Your task to perform on an android device: open app "Nova Launcher" (install if not already installed) Image 0: 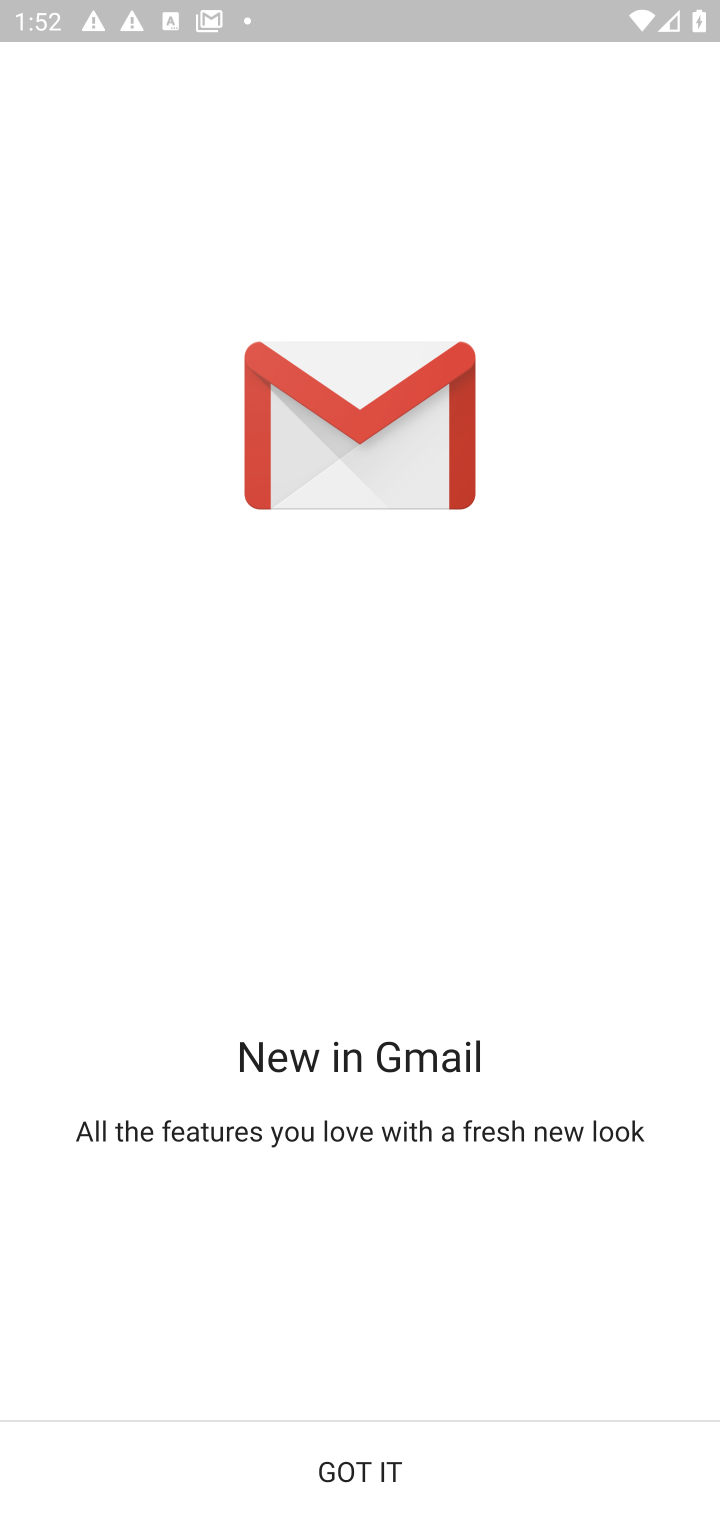
Step 0: press home button
Your task to perform on an android device: open app "Nova Launcher" (install if not already installed) Image 1: 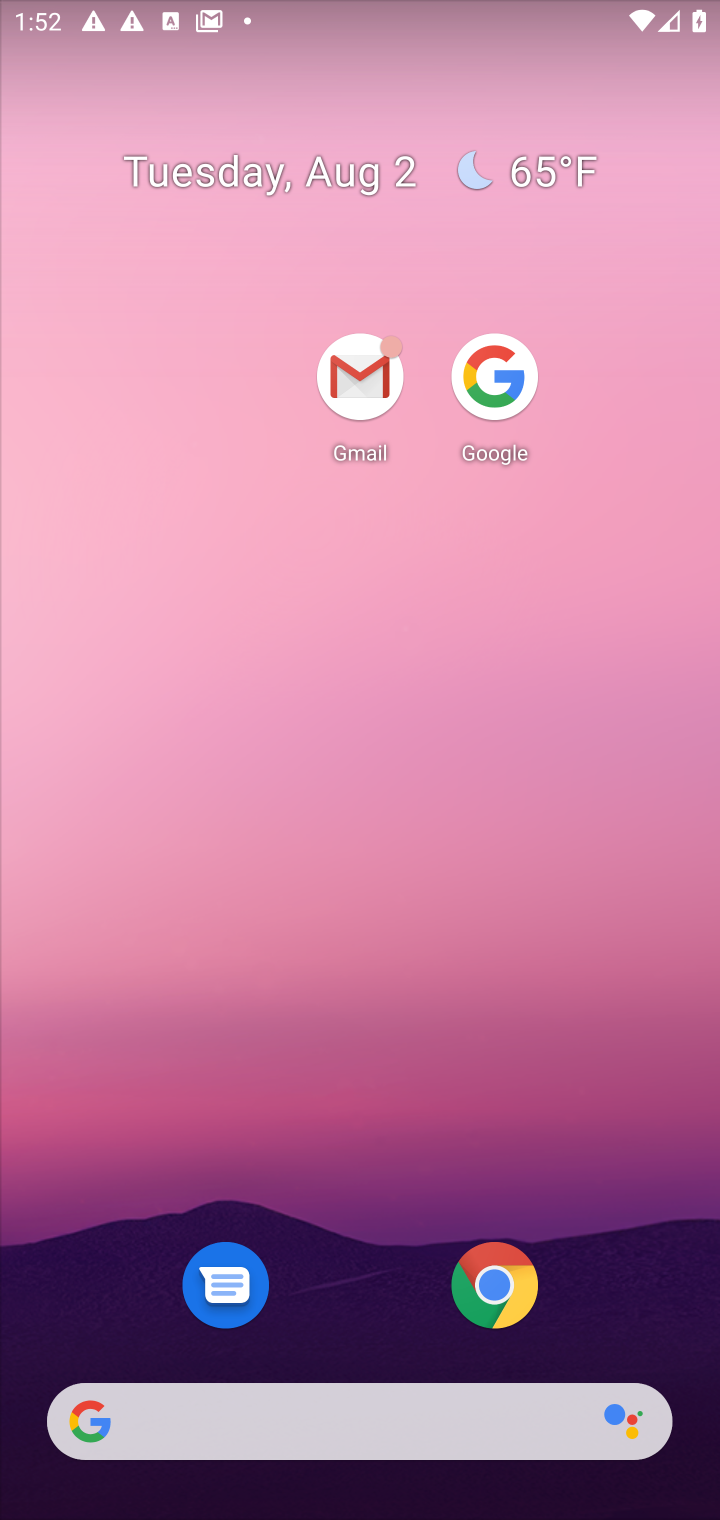
Step 1: drag from (384, 814) to (358, 36)
Your task to perform on an android device: open app "Nova Launcher" (install if not already installed) Image 2: 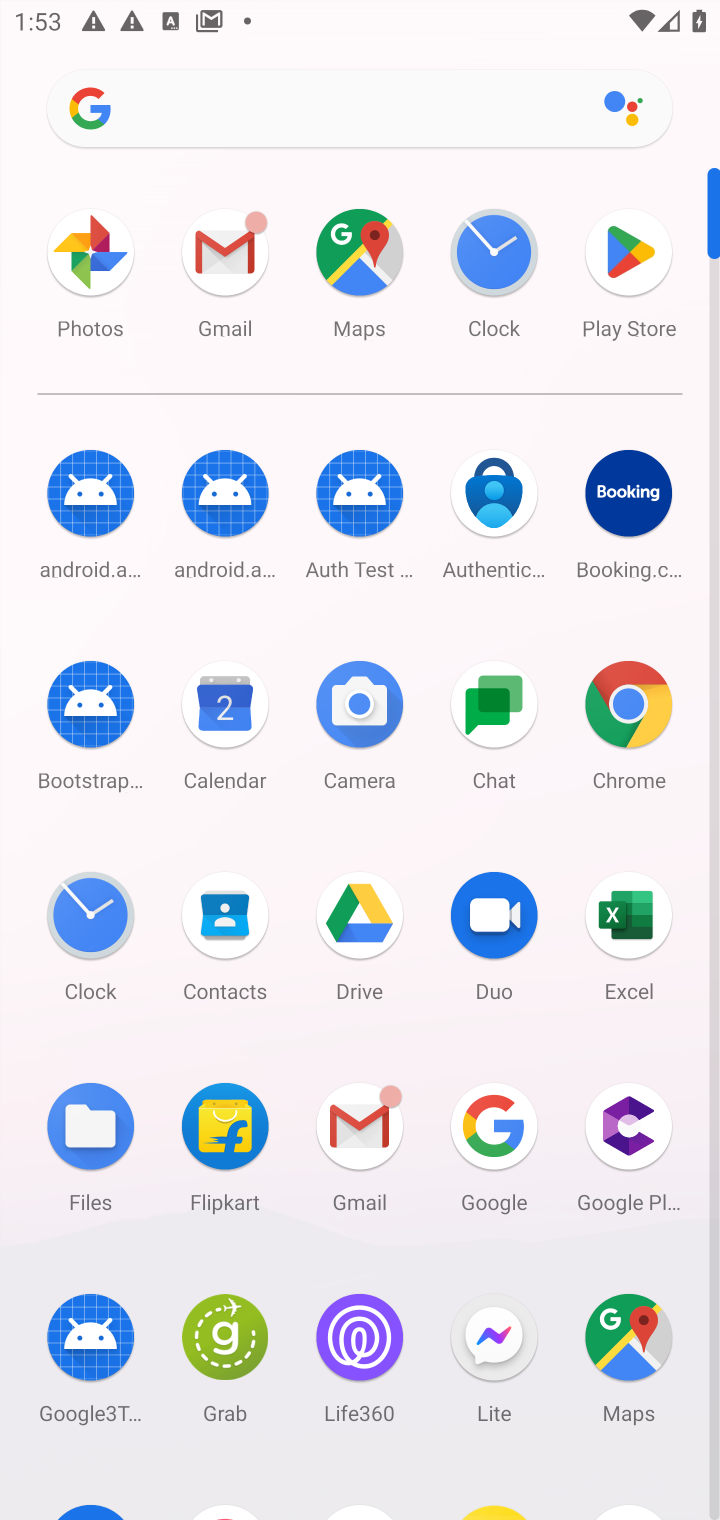
Step 2: drag from (413, 1024) to (411, 311)
Your task to perform on an android device: open app "Nova Launcher" (install if not already installed) Image 3: 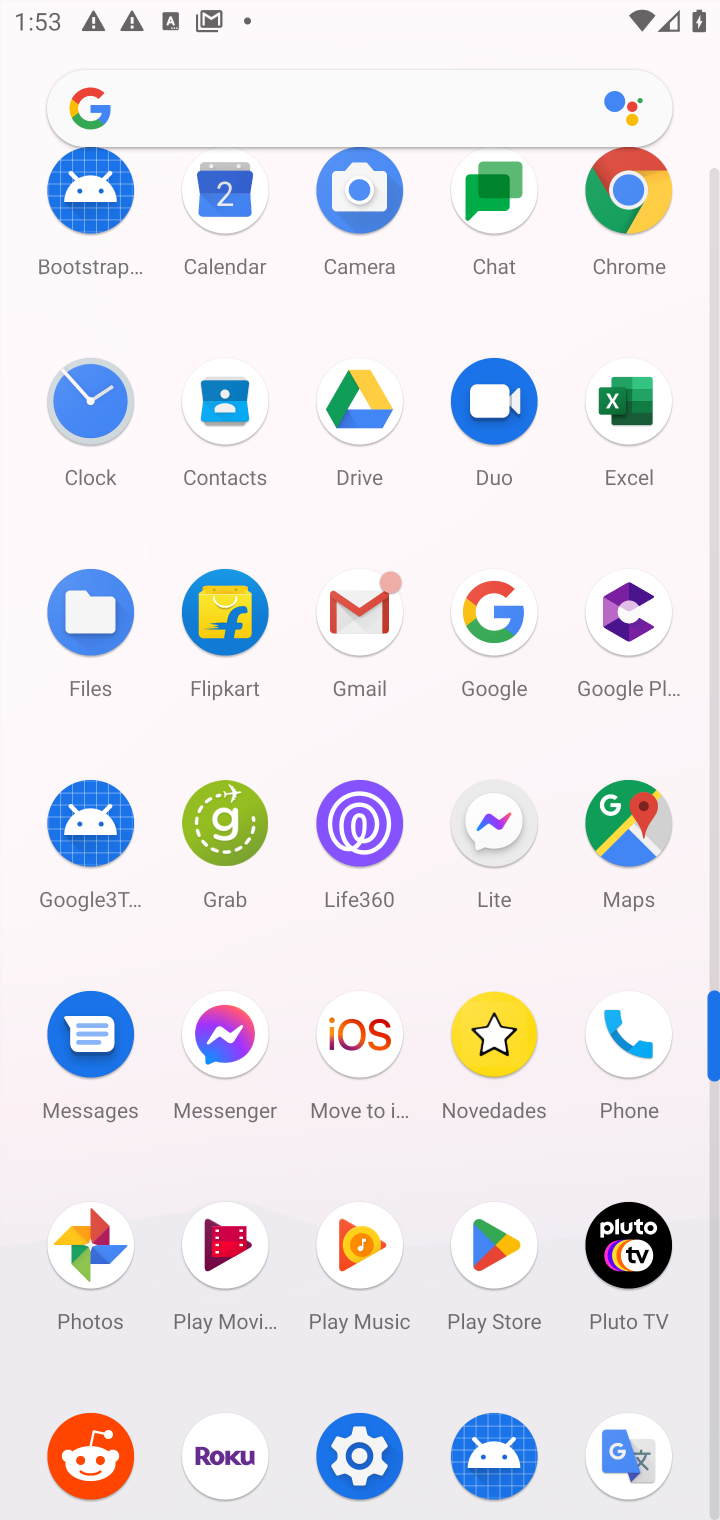
Step 3: click (506, 1244)
Your task to perform on an android device: open app "Nova Launcher" (install if not already installed) Image 4: 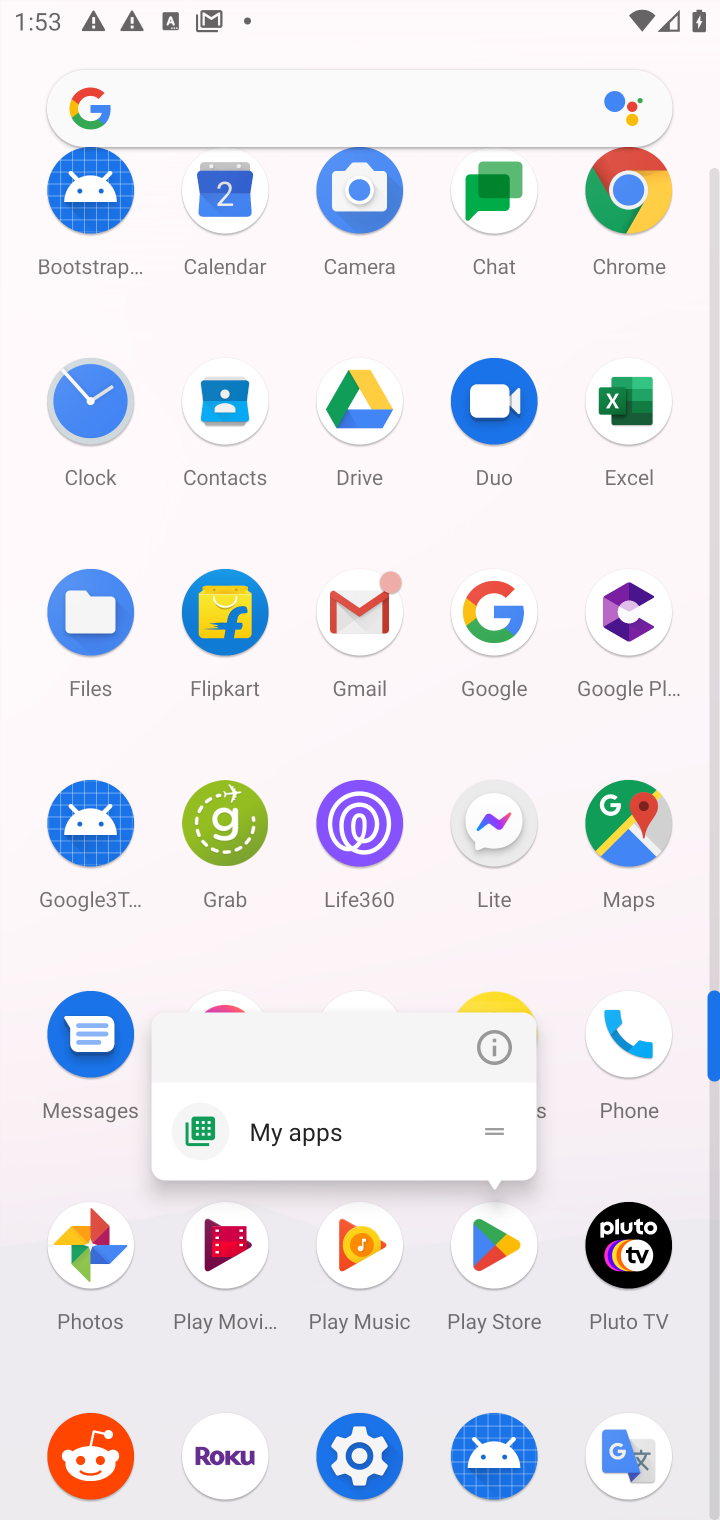
Step 4: click (504, 1249)
Your task to perform on an android device: open app "Nova Launcher" (install if not already installed) Image 5: 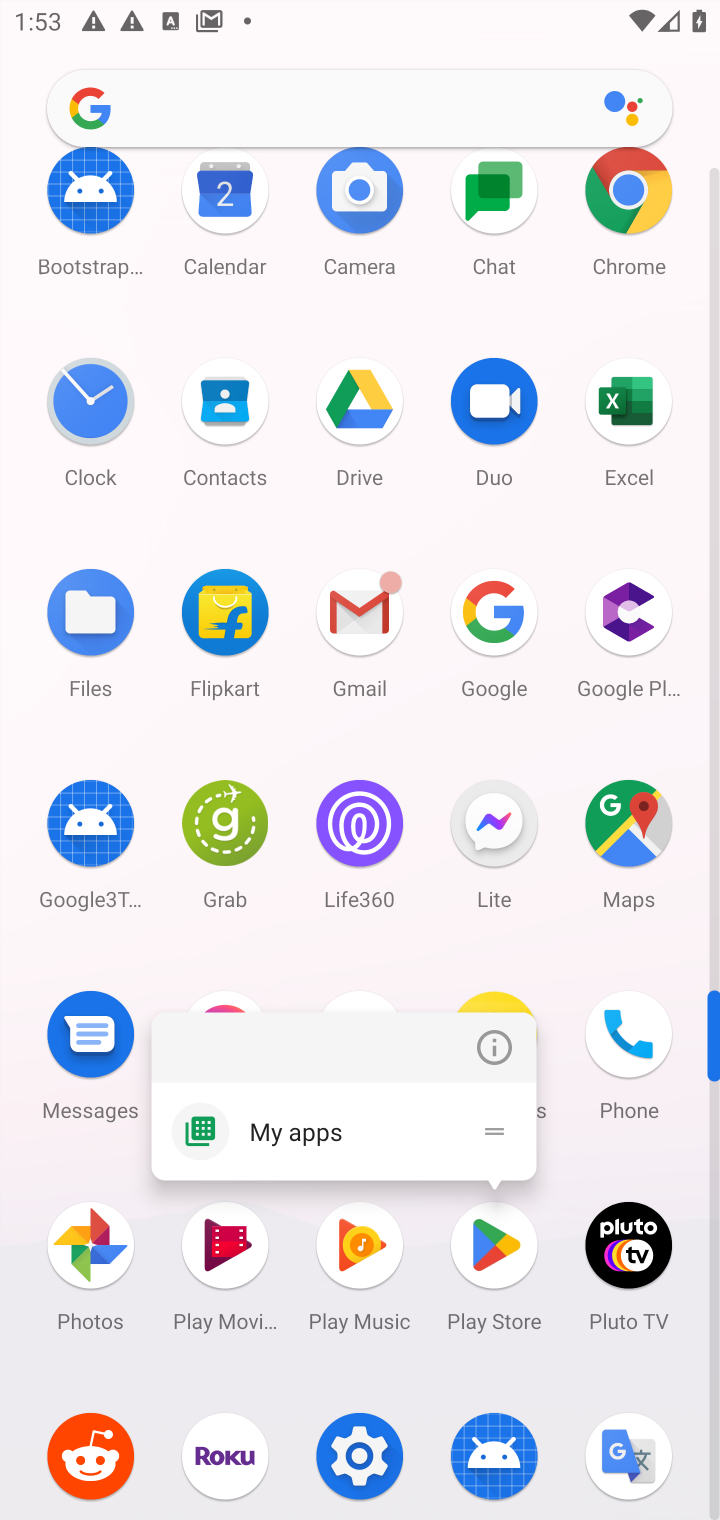
Step 5: click (495, 1246)
Your task to perform on an android device: open app "Nova Launcher" (install if not already installed) Image 6: 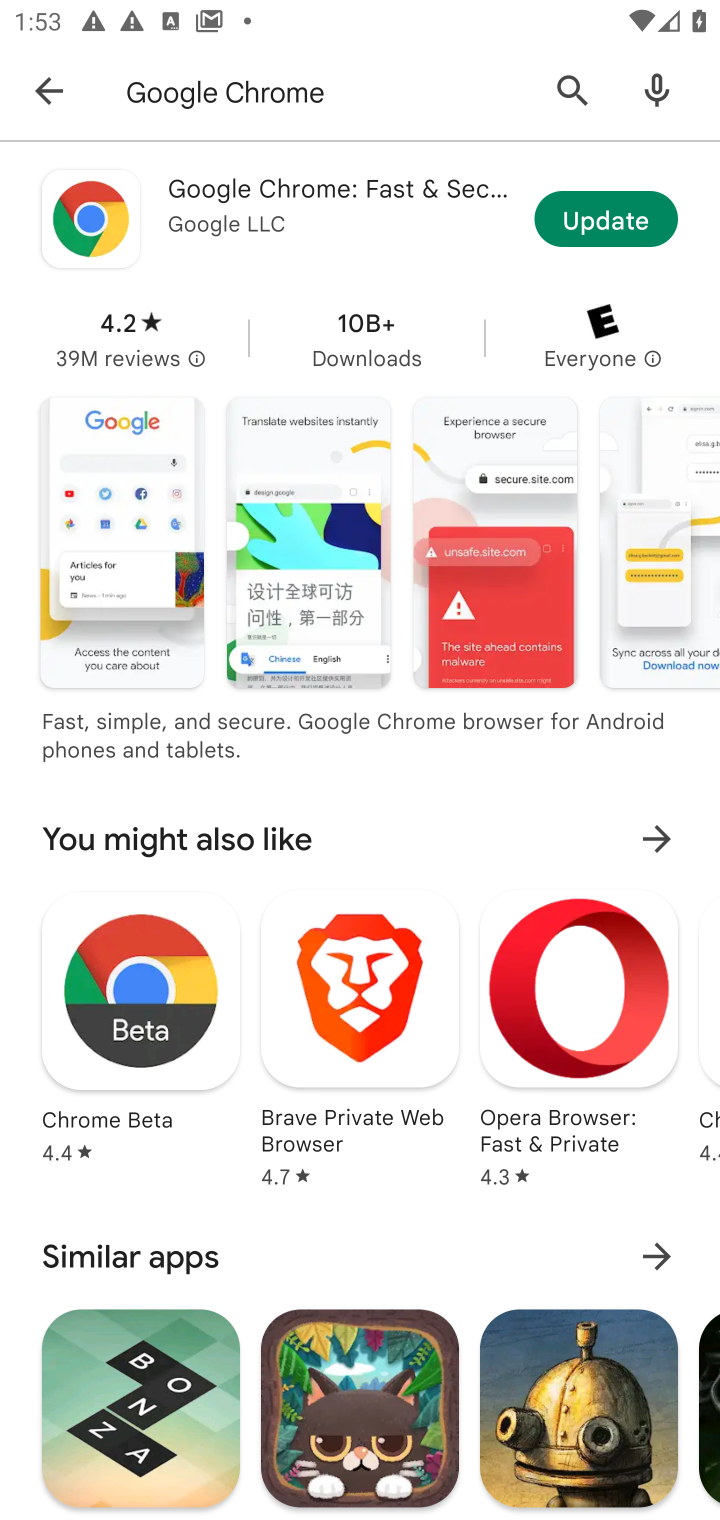
Step 6: click (367, 89)
Your task to perform on an android device: open app "Nova Launcher" (install if not already installed) Image 7: 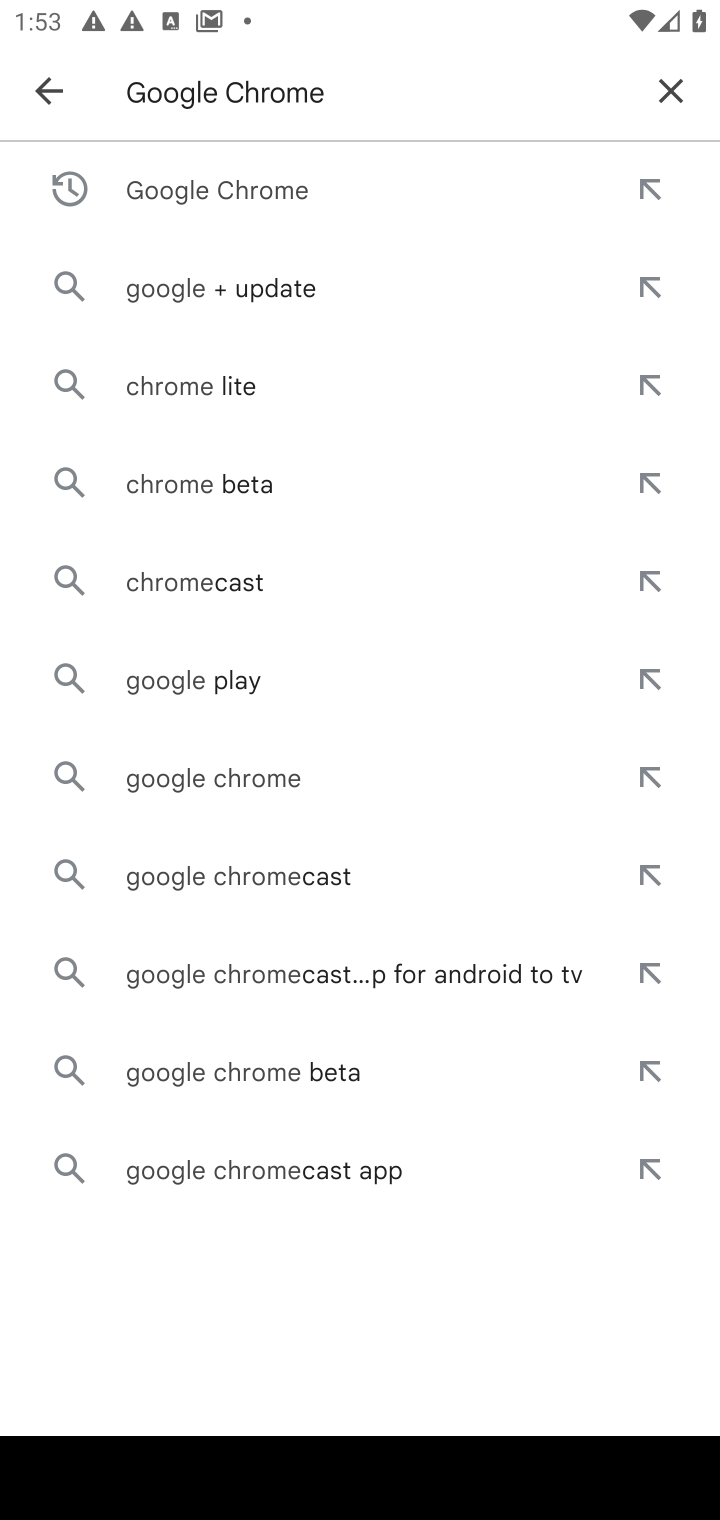
Step 7: click (666, 74)
Your task to perform on an android device: open app "Nova Launcher" (install if not already installed) Image 8: 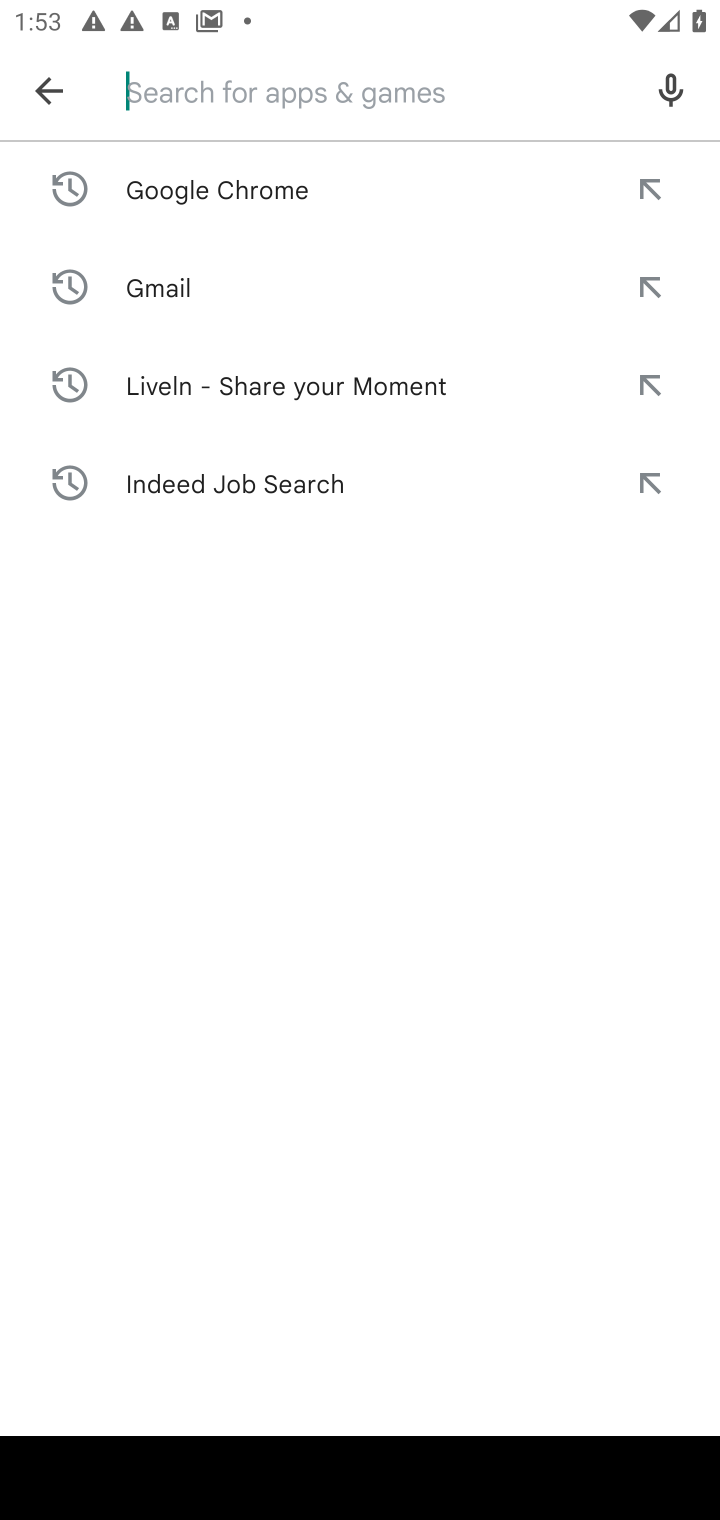
Step 8: type "Nova Launcher"
Your task to perform on an android device: open app "Nova Launcher" (install if not already installed) Image 9: 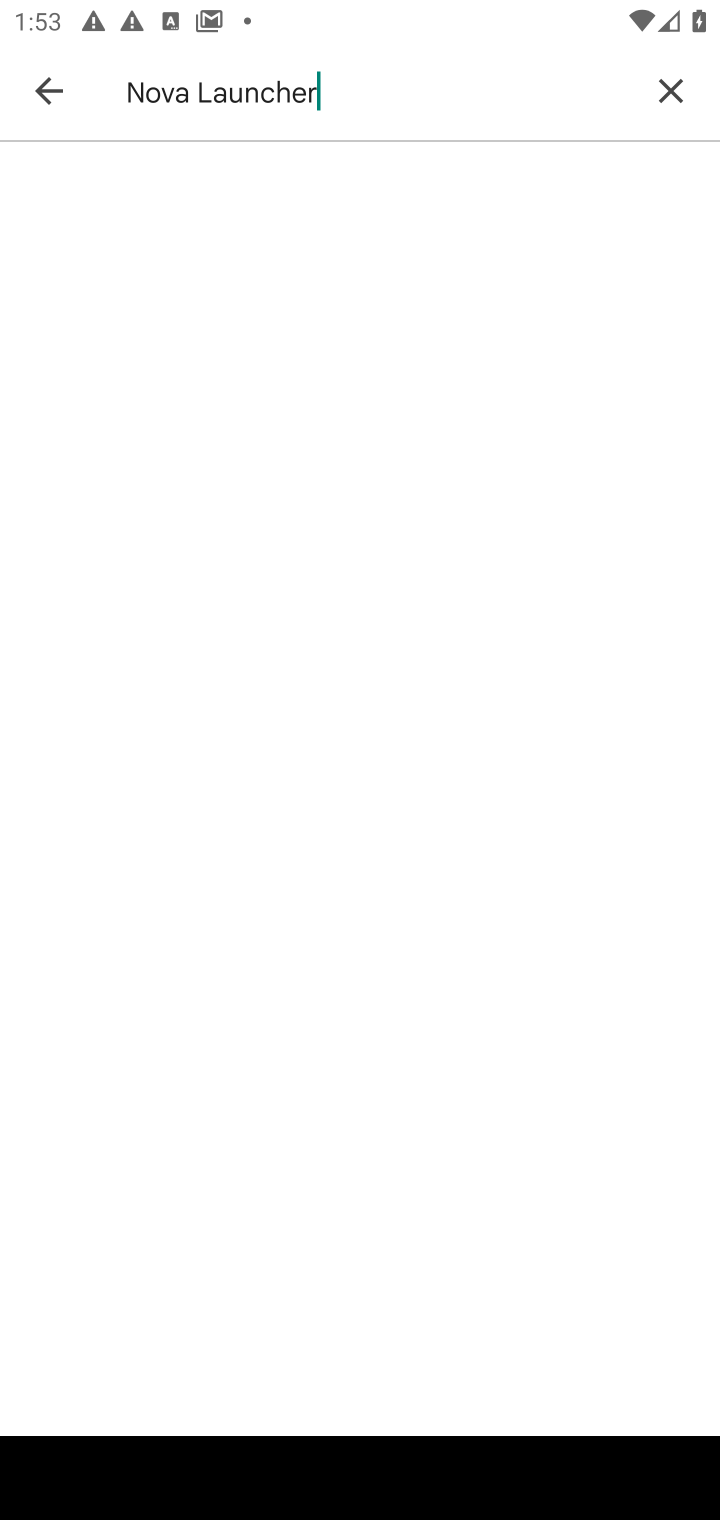
Step 9: press enter
Your task to perform on an android device: open app "Nova Launcher" (install if not already installed) Image 10: 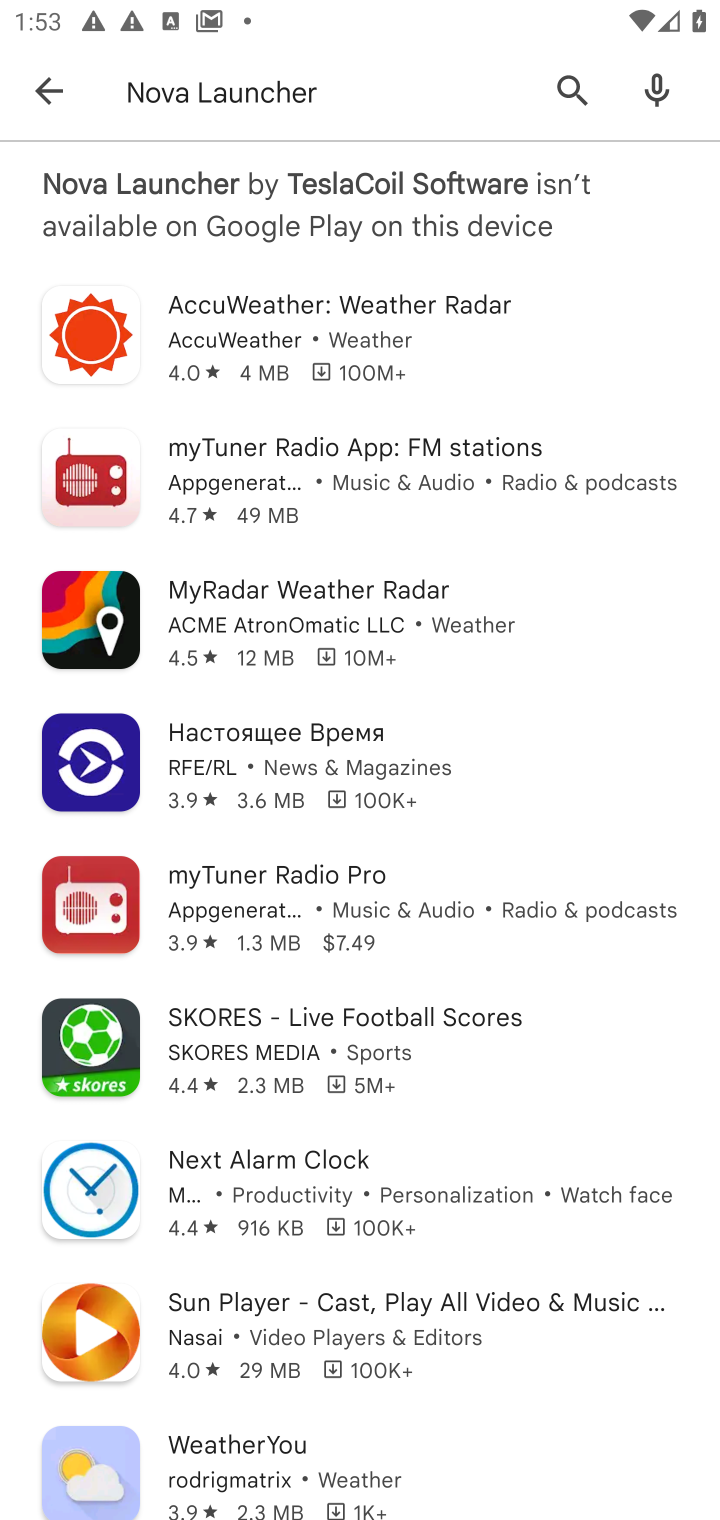
Step 10: task complete